Your task to perform on an android device: turn on data saver in the chrome app Image 0: 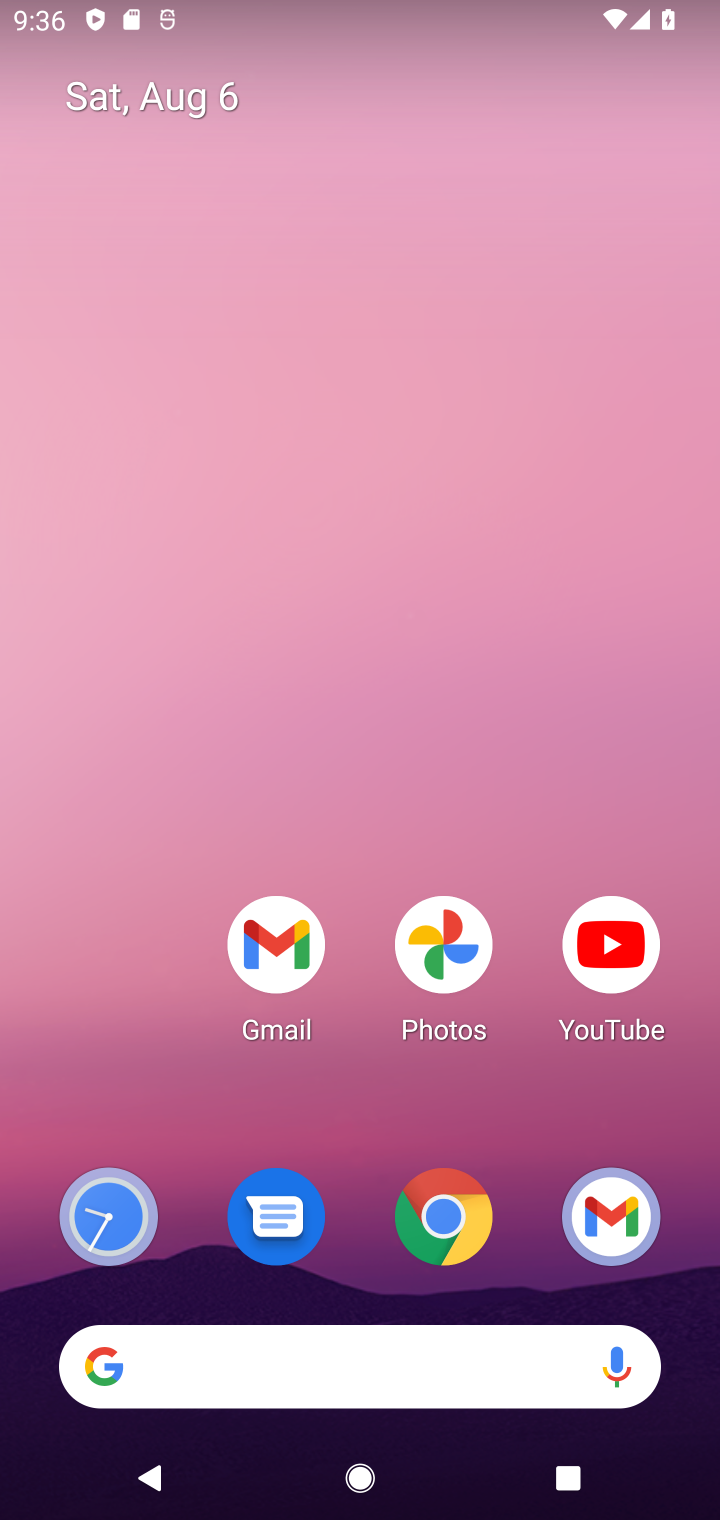
Step 0: click (459, 1218)
Your task to perform on an android device: turn on data saver in the chrome app Image 1: 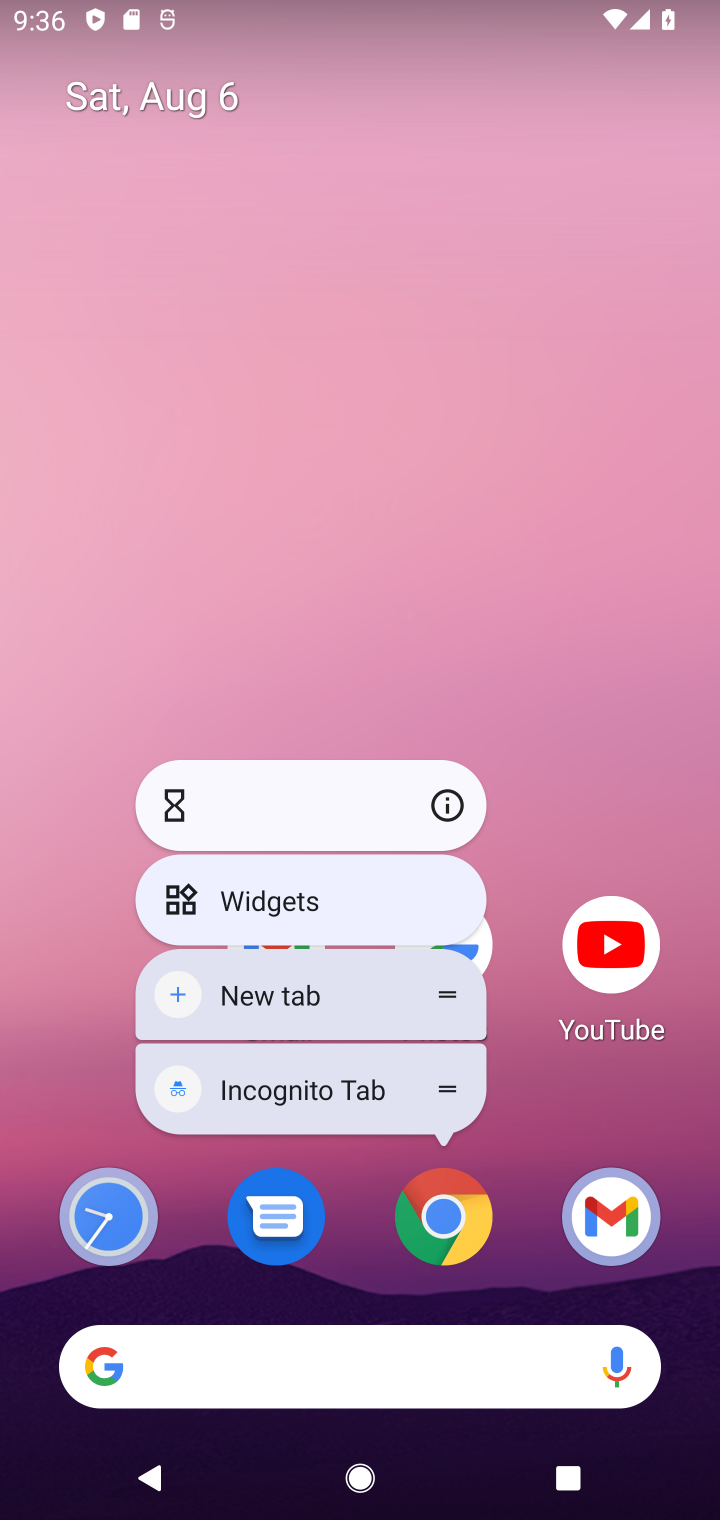
Step 1: click (459, 1218)
Your task to perform on an android device: turn on data saver in the chrome app Image 2: 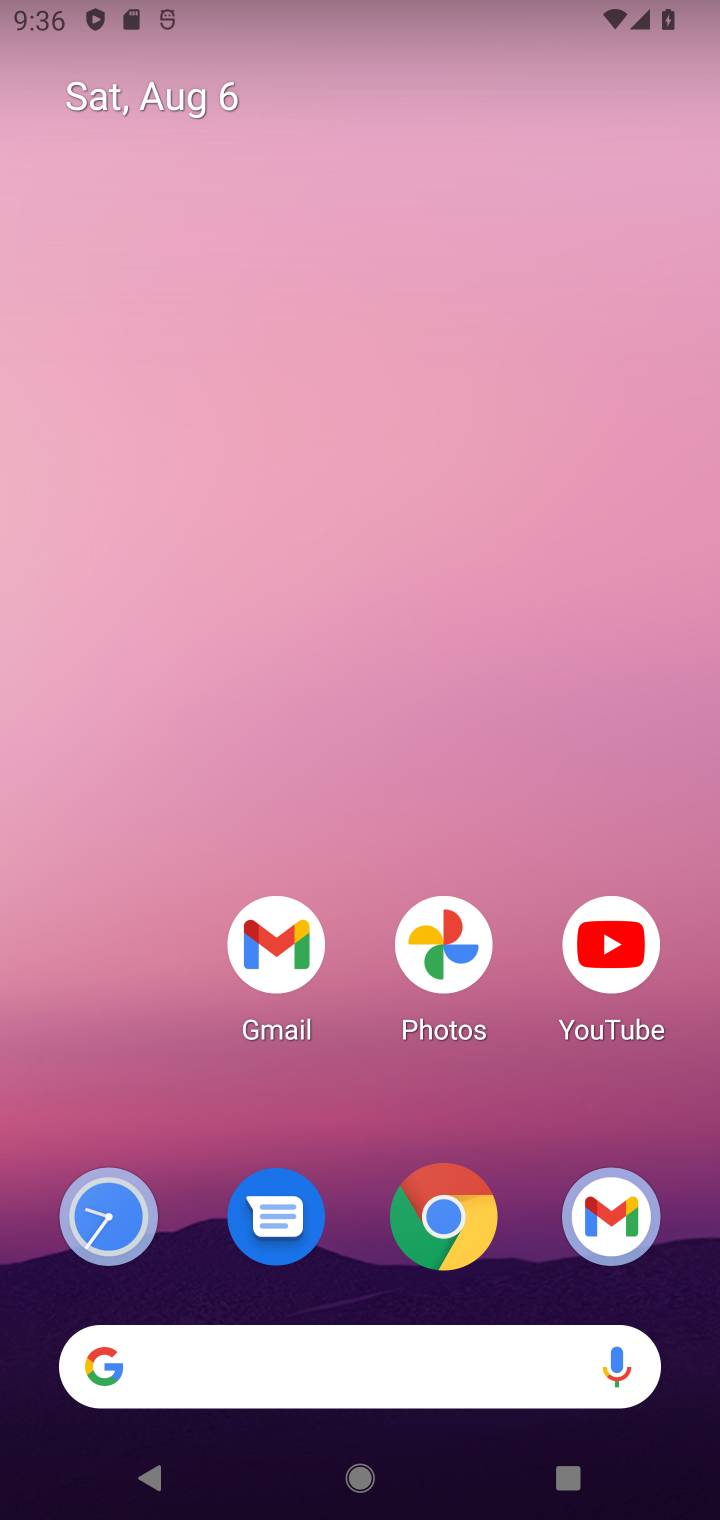
Step 2: click (459, 1218)
Your task to perform on an android device: turn on data saver in the chrome app Image 3: 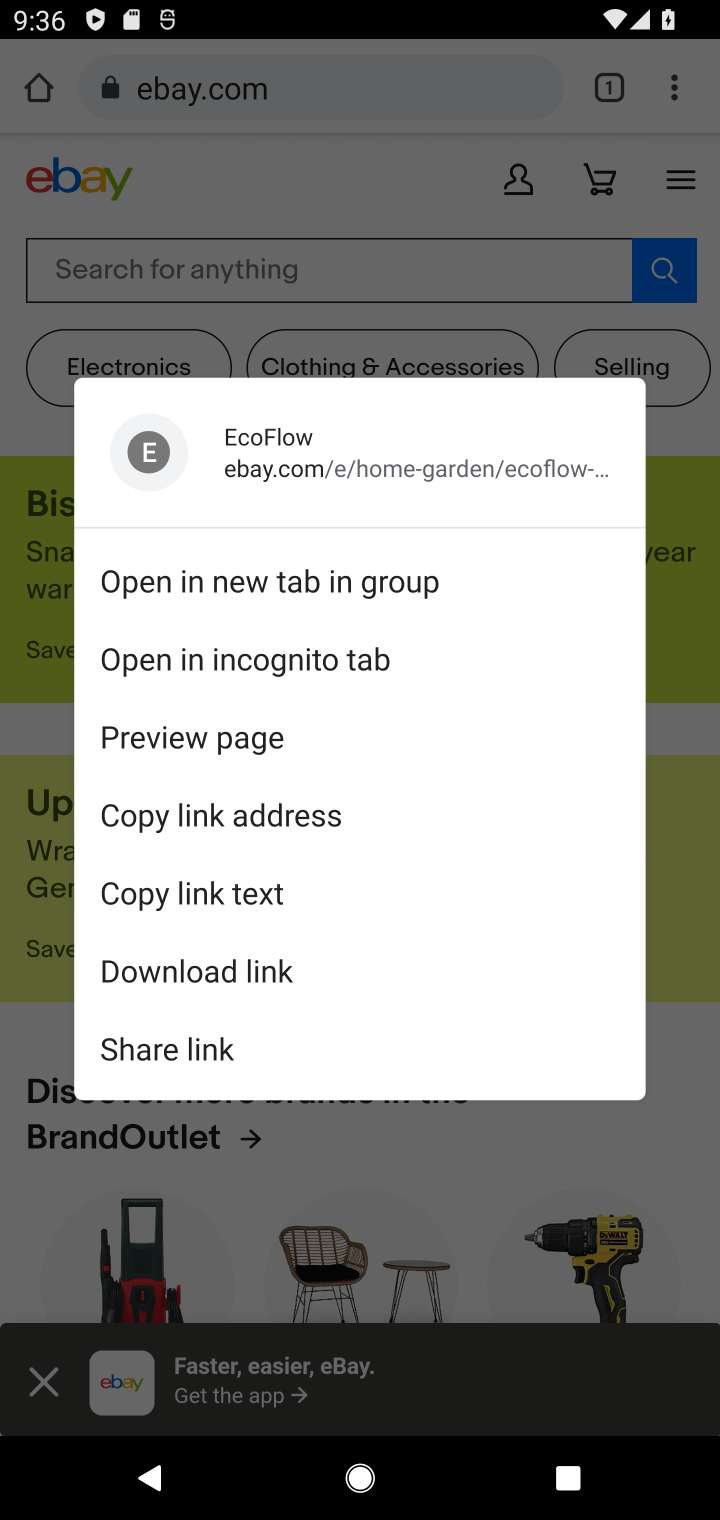
Step 3: click (245, 1175)
Your task to perform on an android device: turn on data saver in the chrome app Image 4: 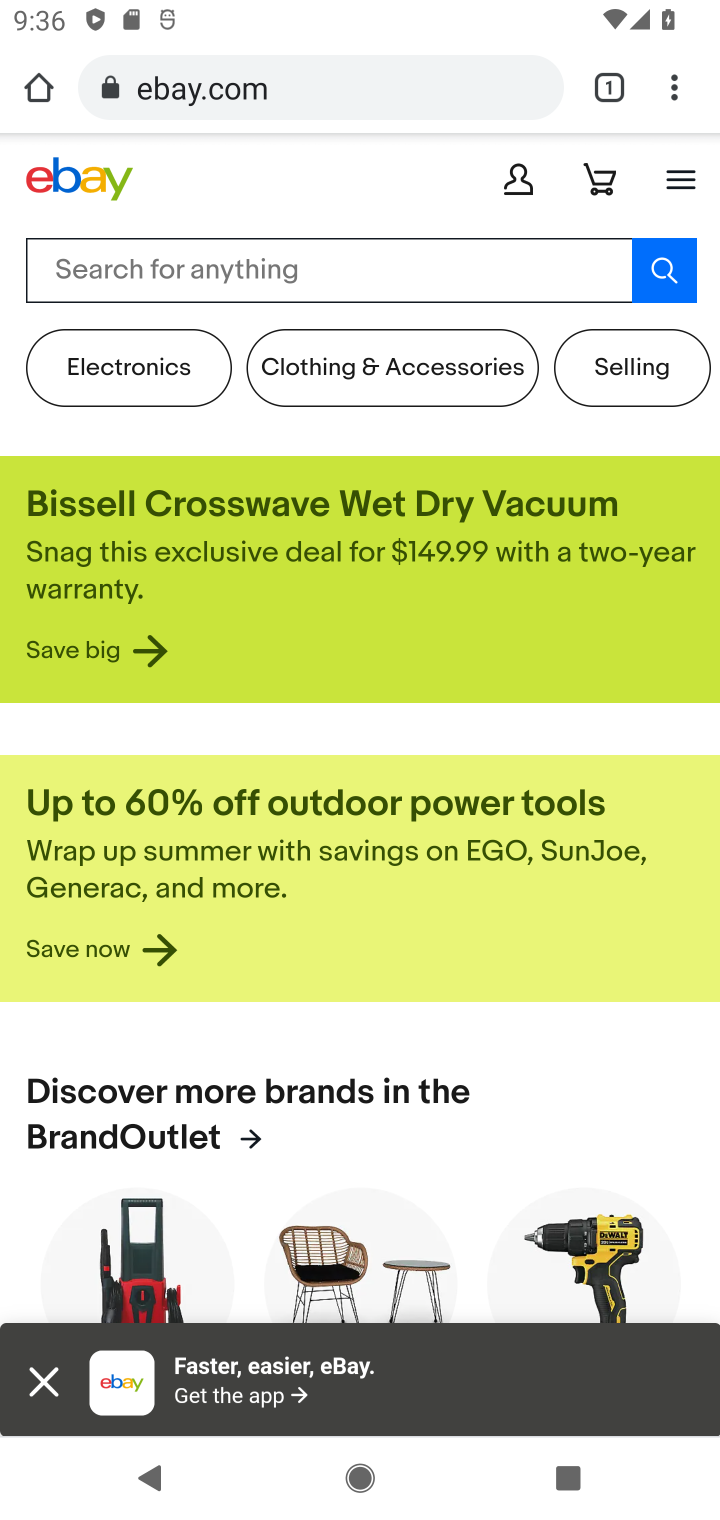
Step 4: click (672, 97)
Your task to perform on an android device: turn on data saver in the chrome app Image 5: 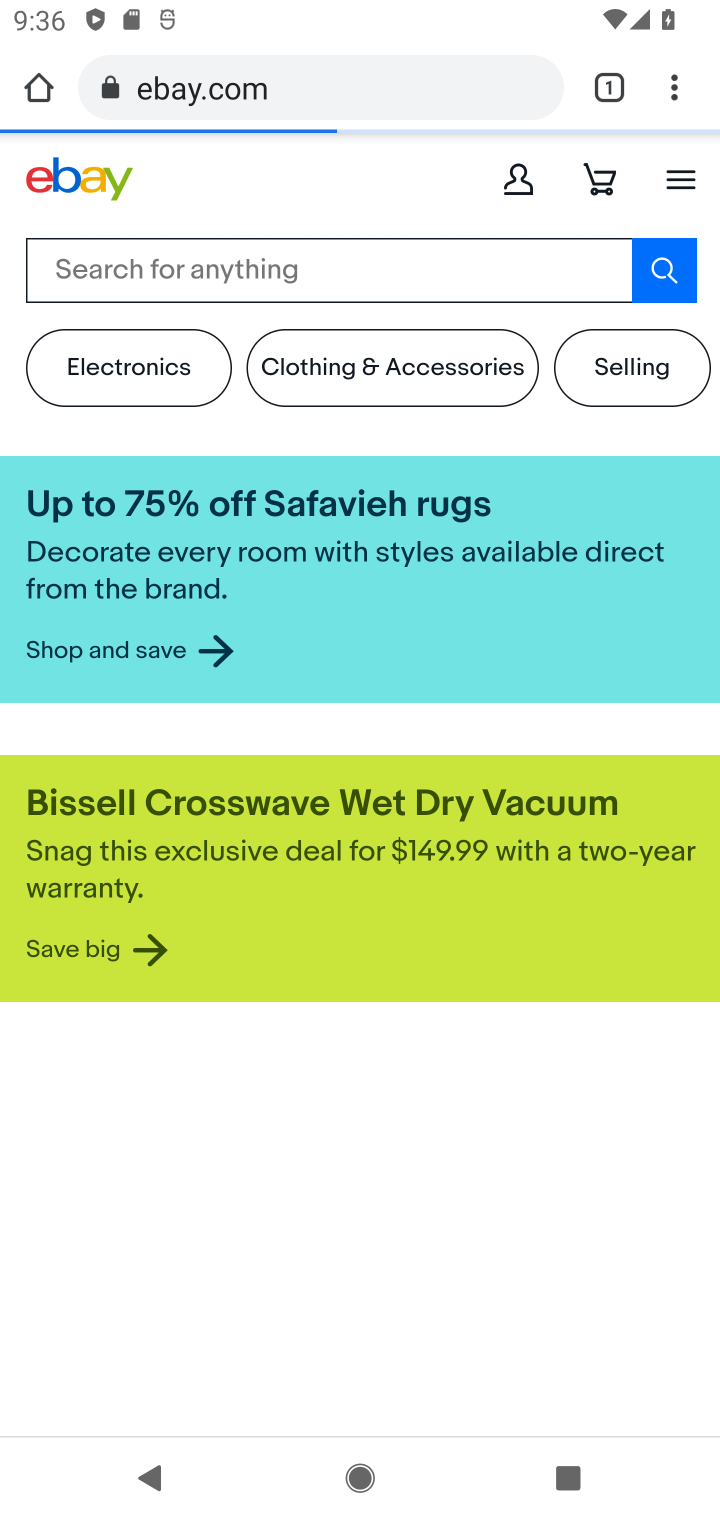
Step 5: click (672, 97)
Your task to perform on an android device: turn on data saver in the chrome app Image 6: 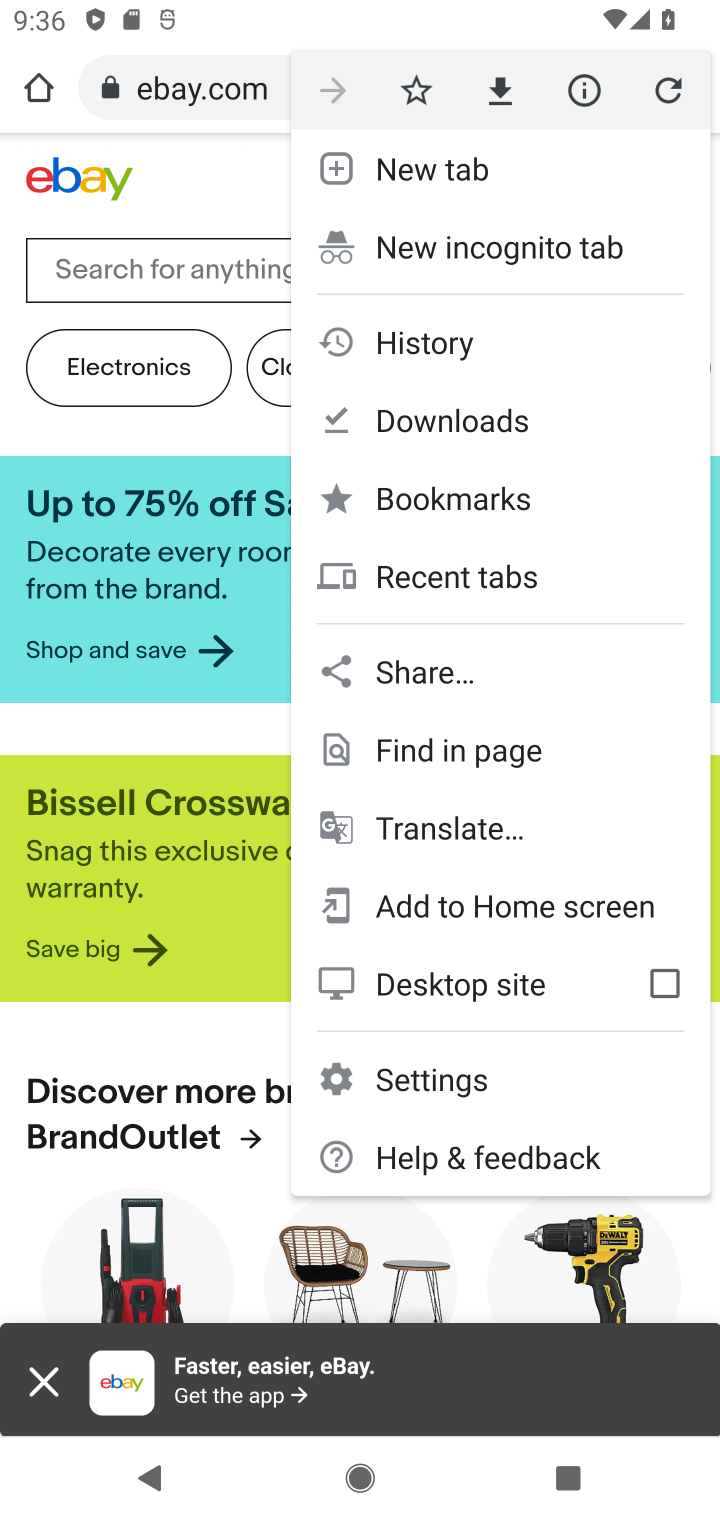
Step 6: click (449, 1081)
Your task to perform on an android device: turn on data saver in the chrome app Image 7: 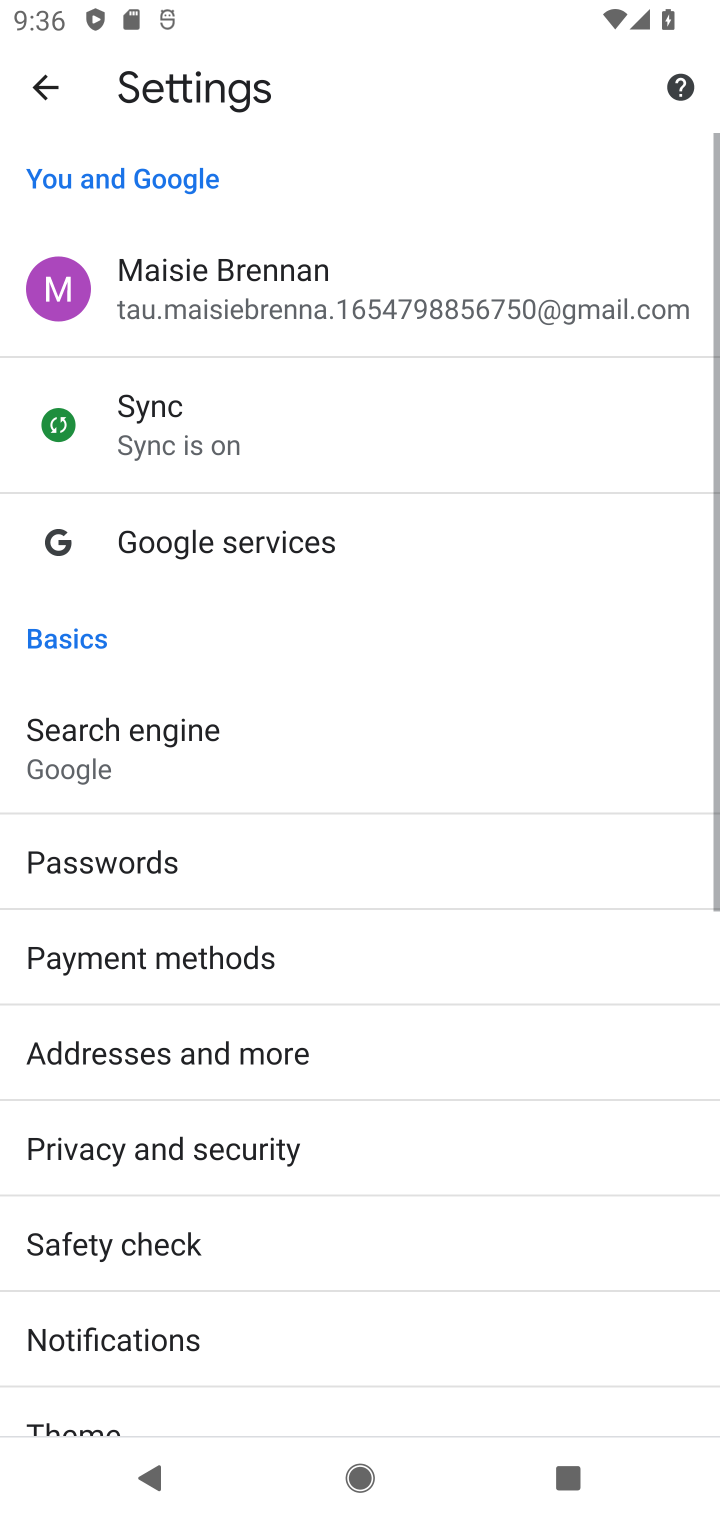
Step 7: drag from (117, 971) to (117, 570)
Your task to perform on an android device: turn on data saver in the chrome app Image 8: 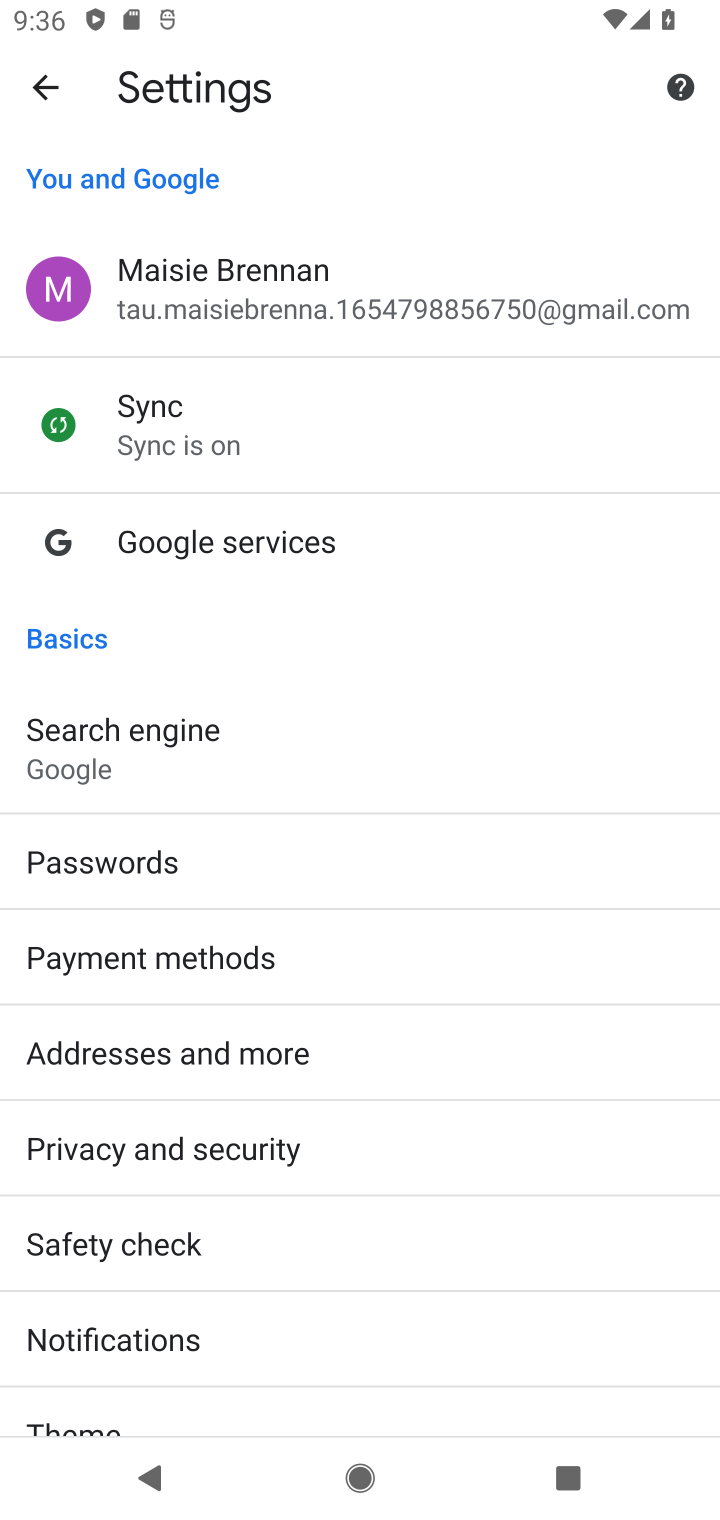
Step 8: drag from (115, 1401) to (171, 816)
Your task to perform on an android device: turn on data saver in the chrome app Image 9: 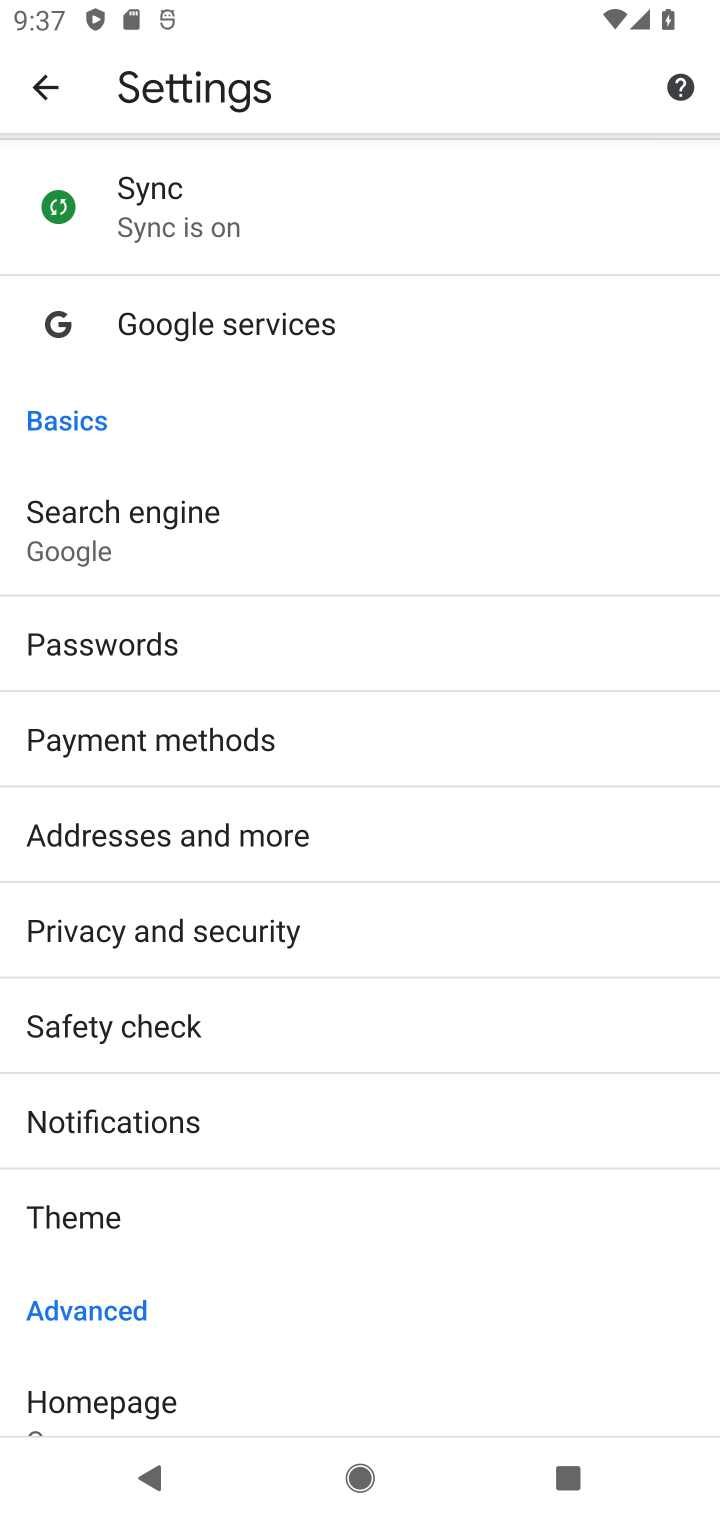
Step 9: drag from (139, 1396) to (130, 737)
Your task to perform on an android device: turn on data saver in the chrome app Image 10: 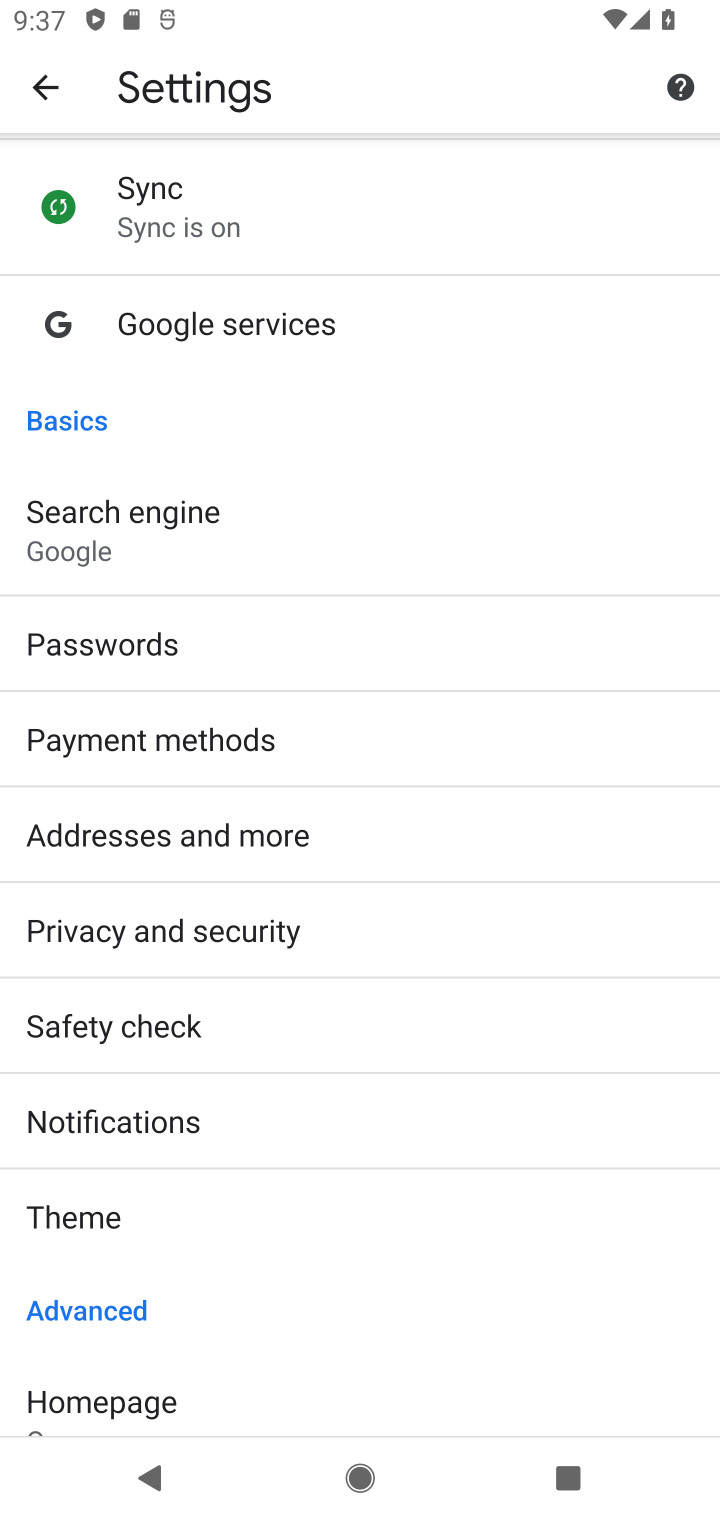
Step 10: drag from (249, 1321) to (306, 929)
Your task to perform on an android device: turn on data saver in the chrome app Image 11: 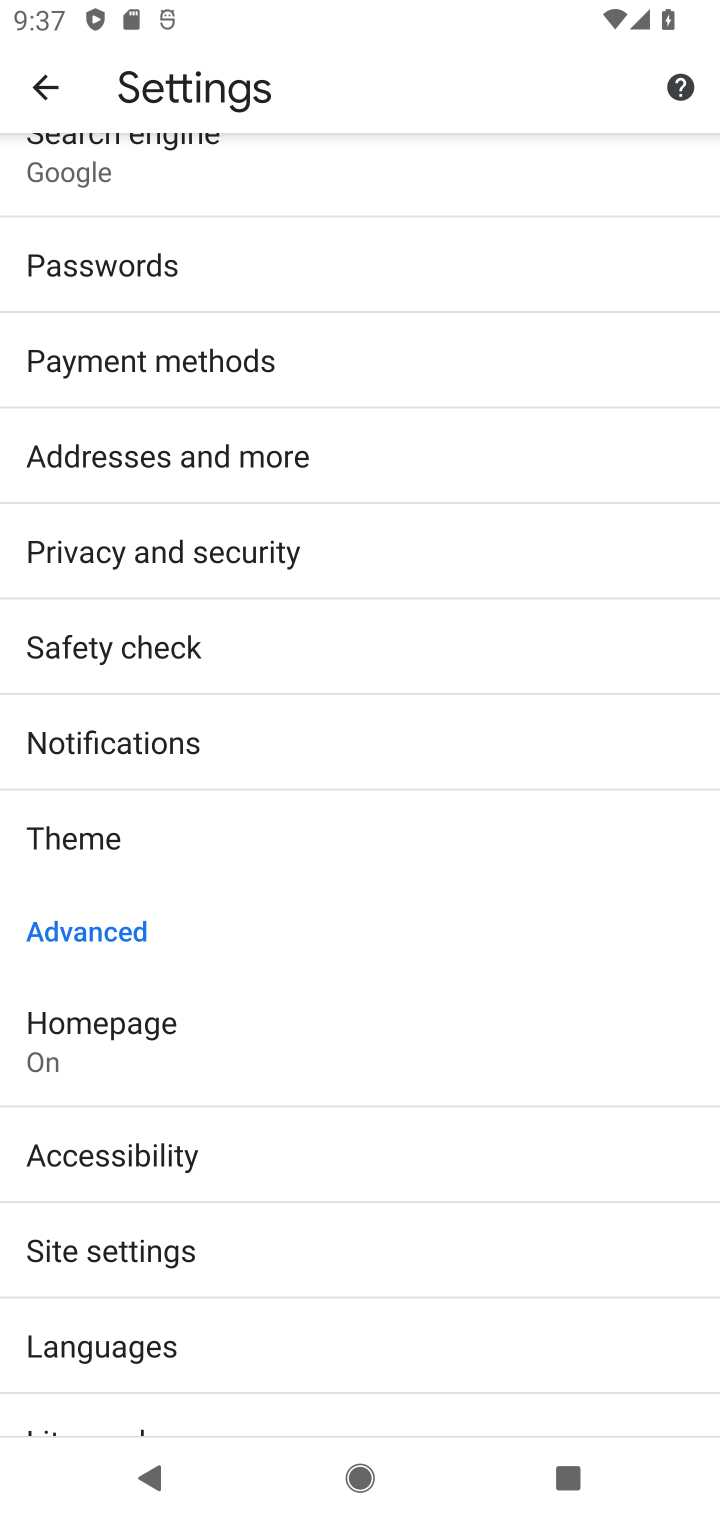
Step 11: click (70, 1252)
Your task to perform on an android device: turn on data saver in the chrome app Image 12: 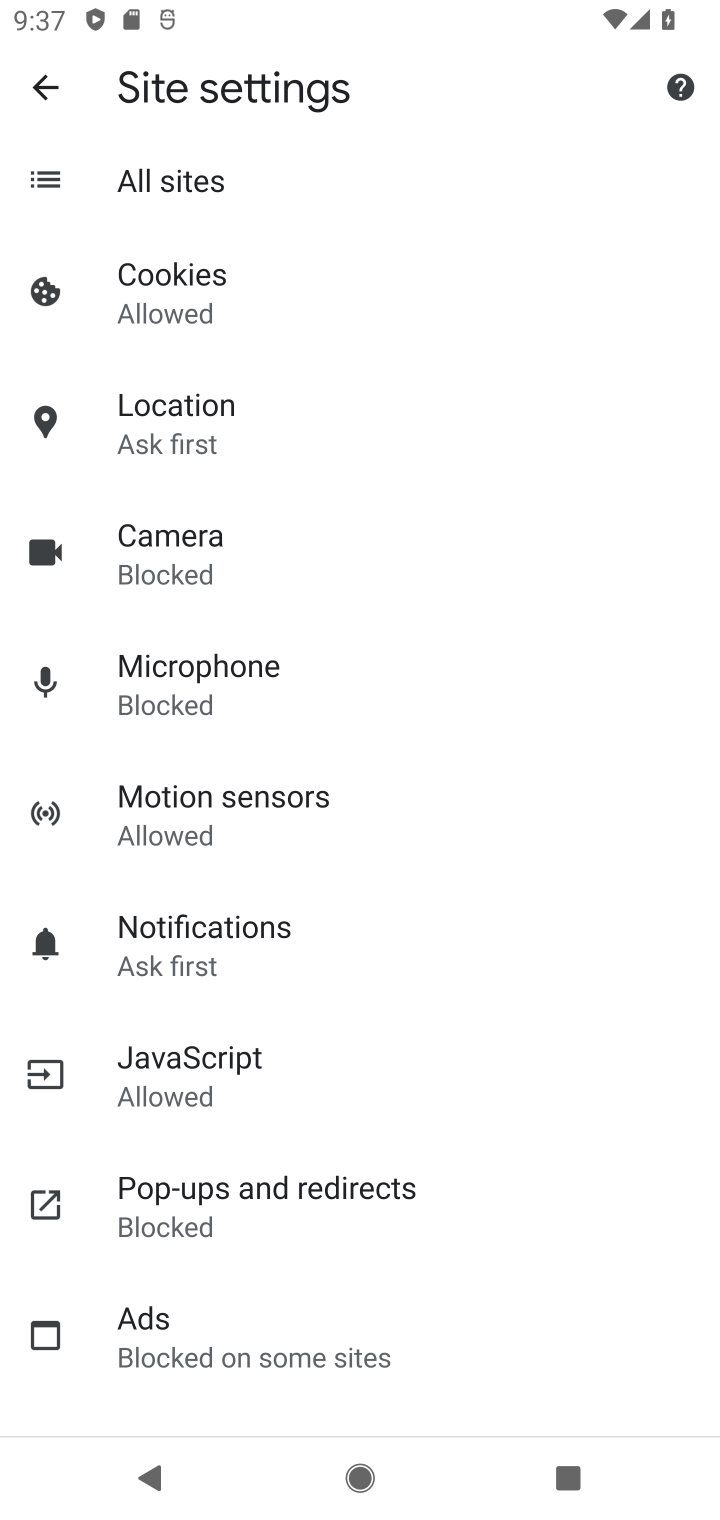
Step 12: drag from (219, 1203) to (315, 689)
Your task to perform on an android device: turn on data saver in the chrome app Image 13: 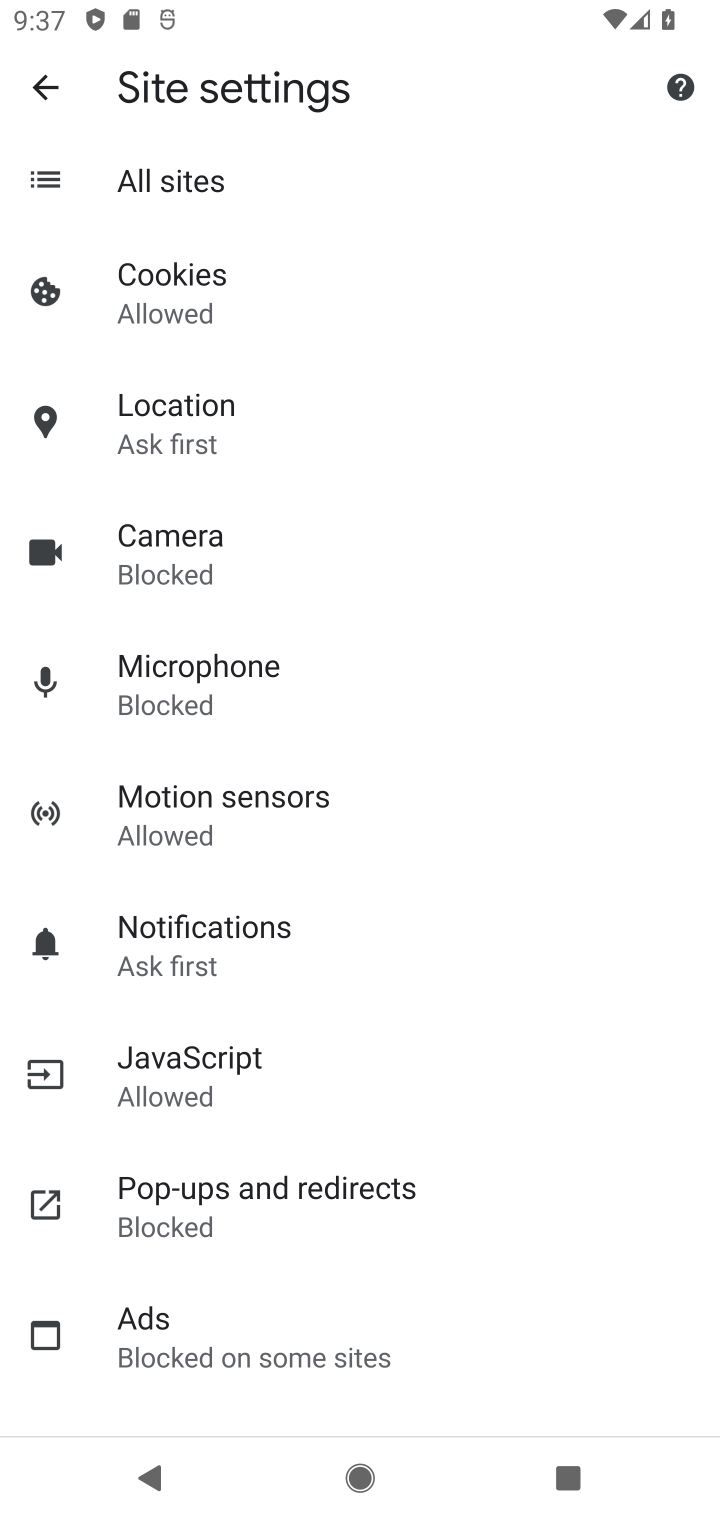
Step 13: click (38, 87)
Your task to perform on an android device: turn on data saver in the chrome app Image 14: 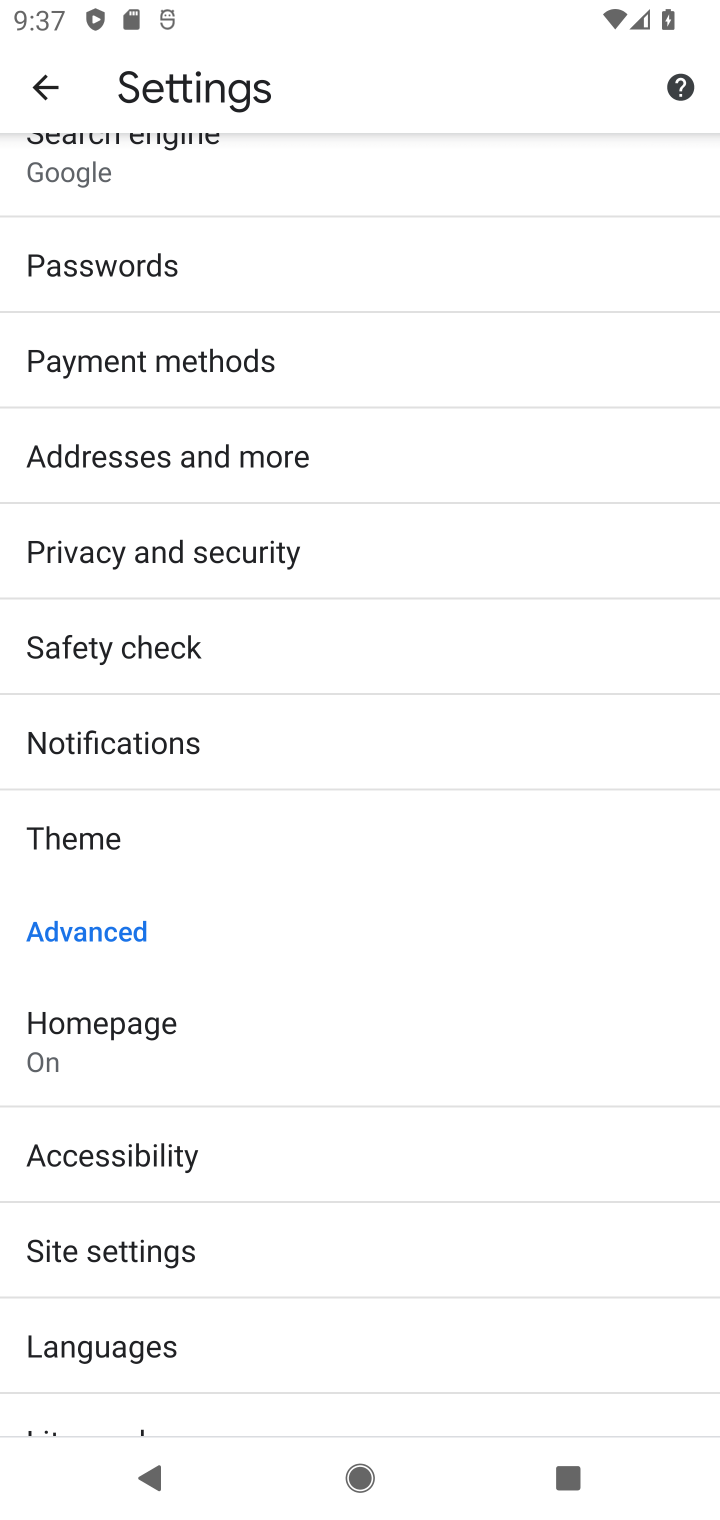
Step 14: drag from (123, 1377) to (123, 757)
Your task to perform on an android device: turn on data saver in the chrome app Image 15: 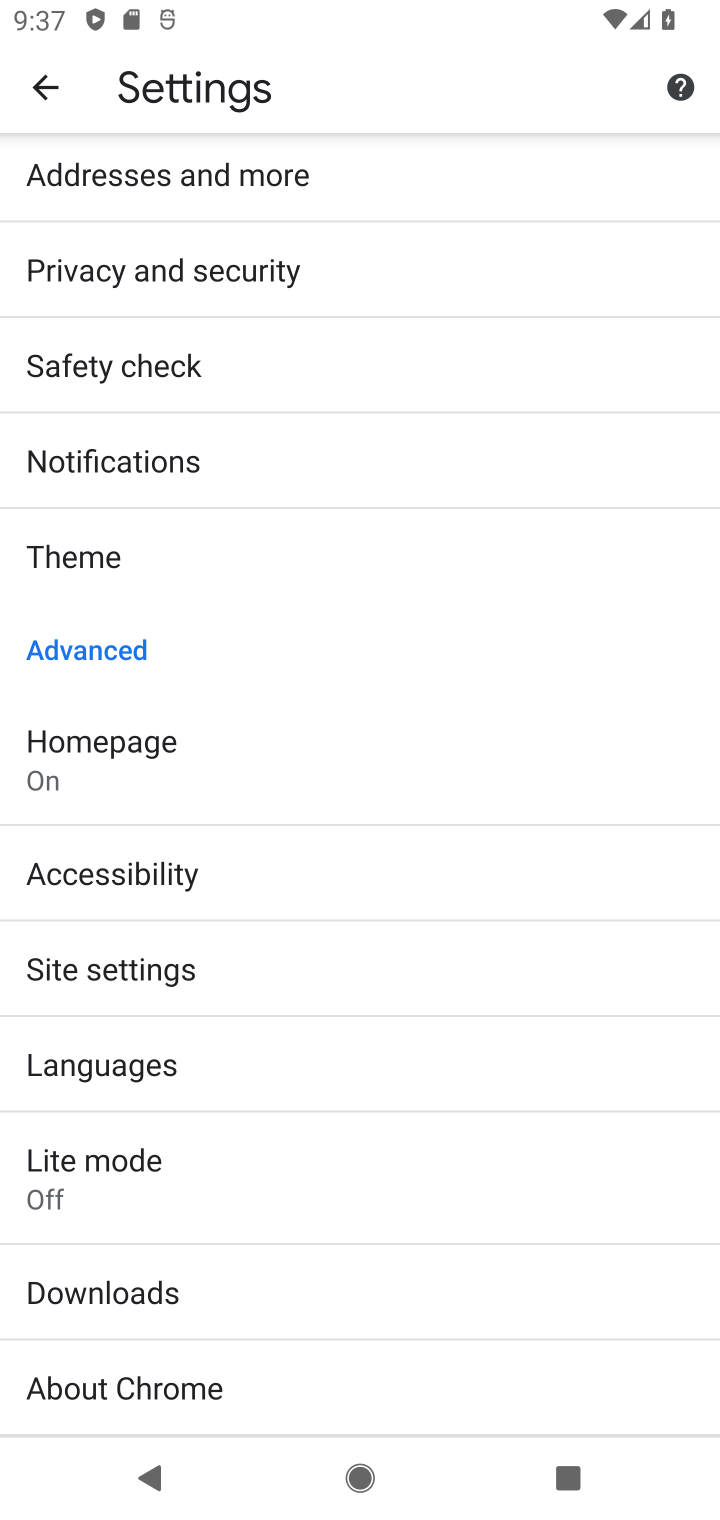
Step 15: click (129, 1180)
Your task to perform on an android device: turn on data saver in the chrome app Image 16: 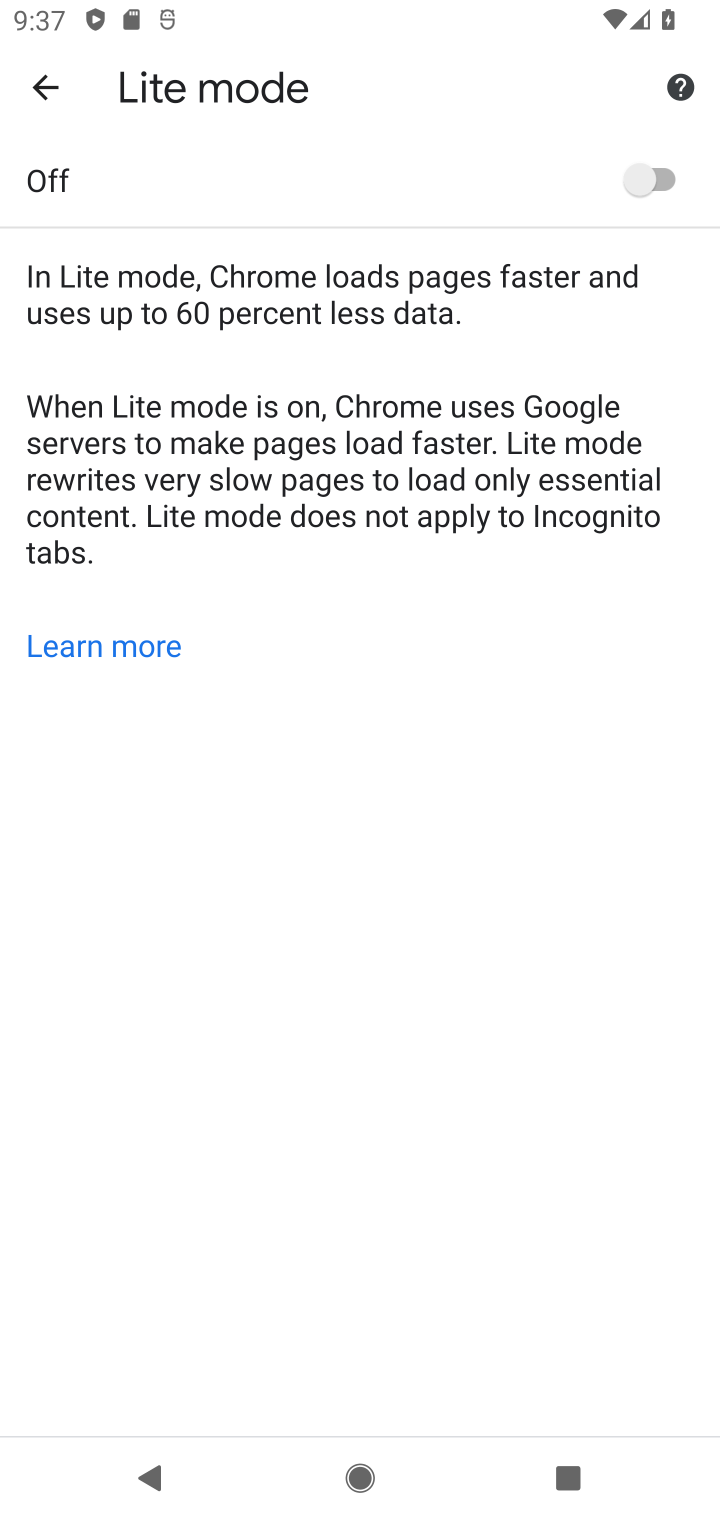
Step 16: click (666, 181)
Your task to perform on an android device: turn on data saver in the chrome app Image 17: 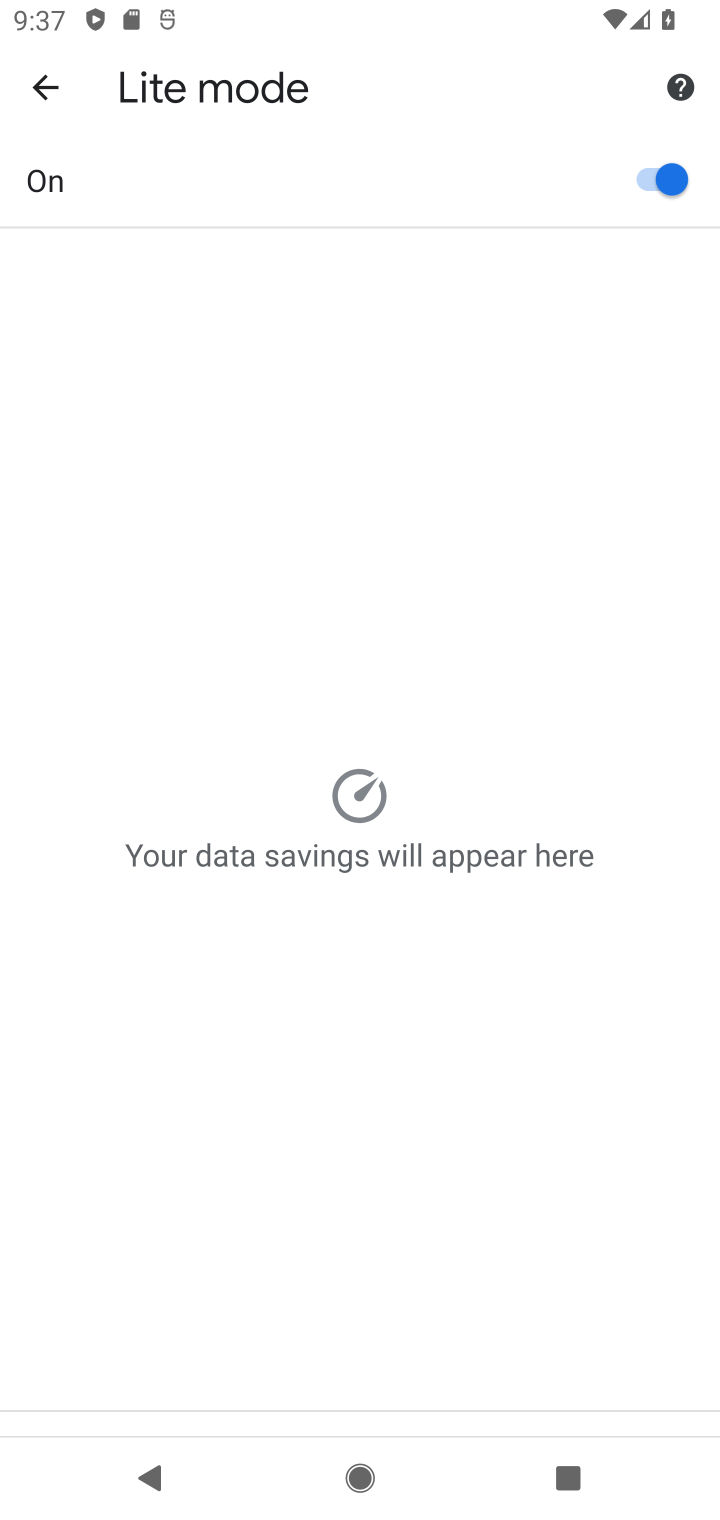
Step 17: task complete